Your task to perform on an android device: manage bookmarks in the chrome app Image 0: 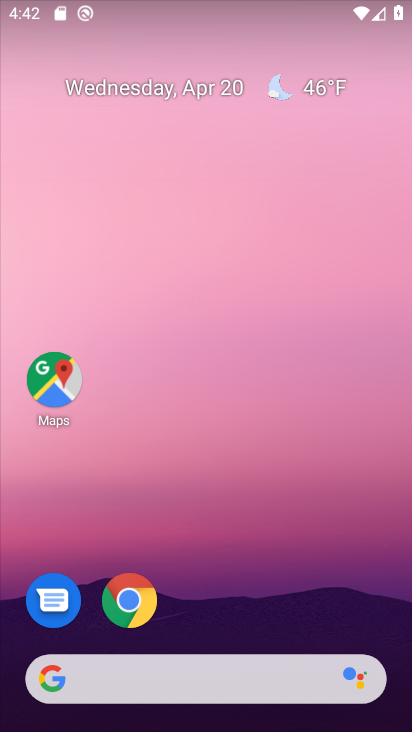
Step 0: click (126, 594)
Your task to perform on an android device: manage bookmarks in the chrome app Image 1: 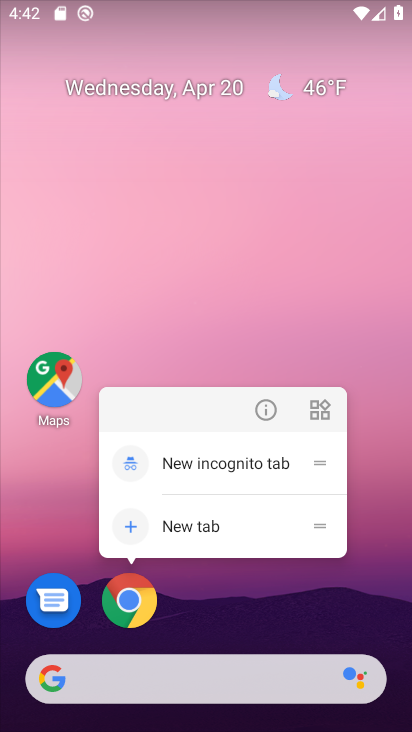
Step 1: click (213, 238)
Your task to perform on an android device: manage bookmarks in the chrome app Image 2: 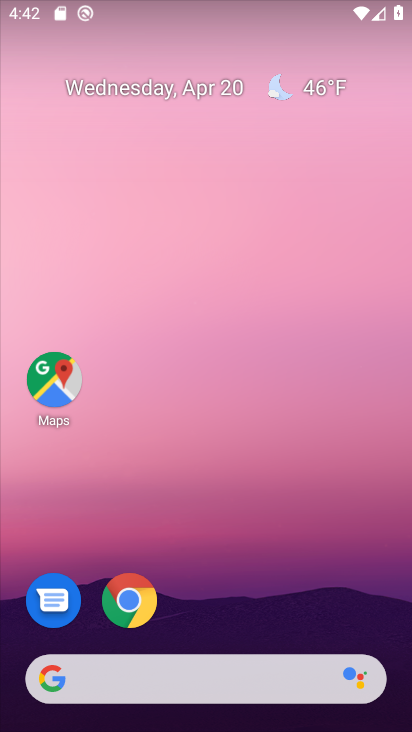
Step 2: drag from (211, 620) to (200, 84)
Your task to perform on an android device: manage bookmarks in the chrome app Image 3: 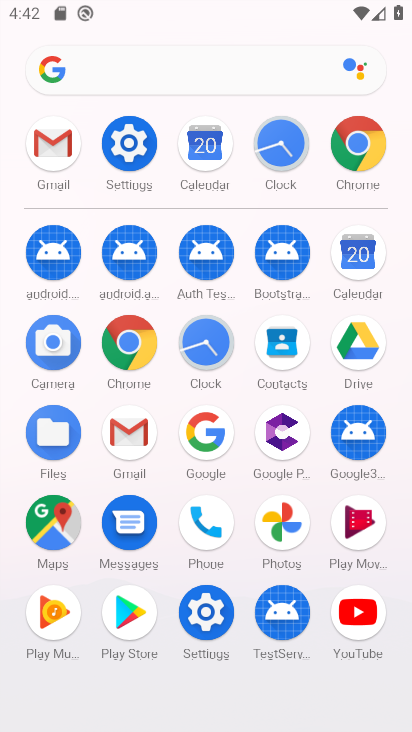
Step 3: click (127, 339)
Your task to perform on an android device: manage bookmarks in the chrome app Image 4: 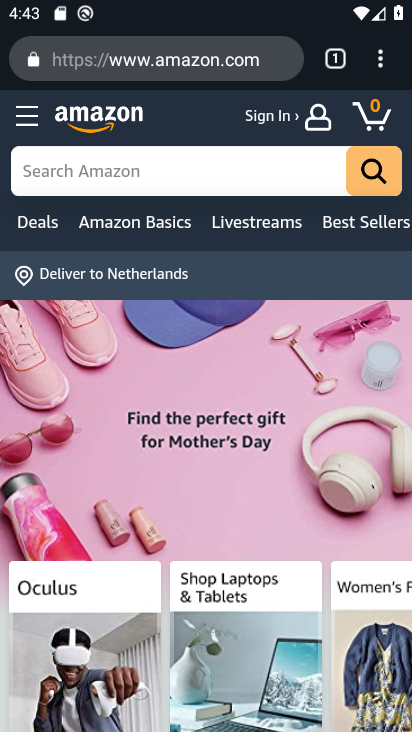
Step 4: click (379, 55)
Your task to perform on an android device: manage bookmarks in the chrome app Image 5: 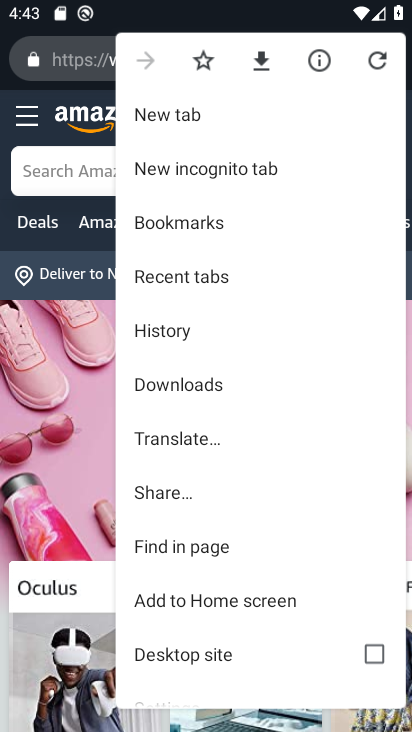
Step 5: click (235, 211)
Your task to perform on an android device: manage bookmarks in the chrome app Image 6: 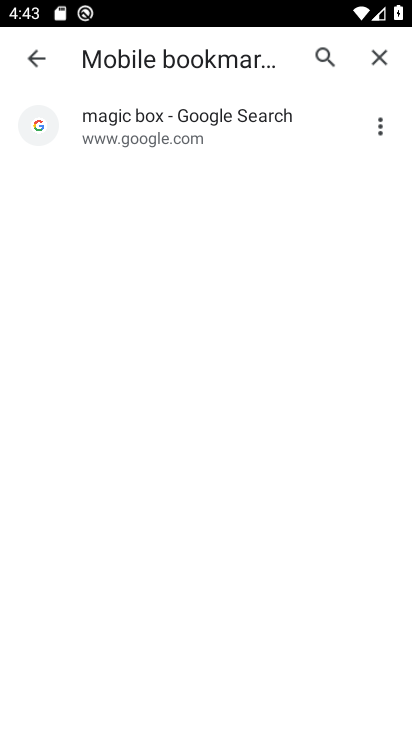
Step 6: click (377, 124)
Your task to perform on an android device: manage bookmarks in the chrome app Image 7: 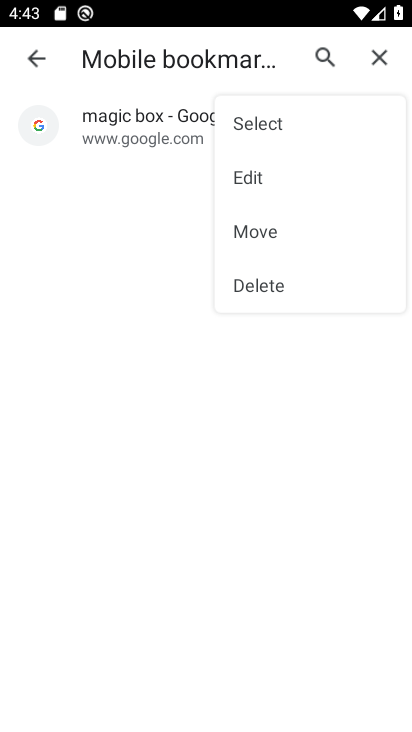
Step 7: click (300, 282)
Your task to perform on an android device: manage bookmarks in the chrome app Image 8: 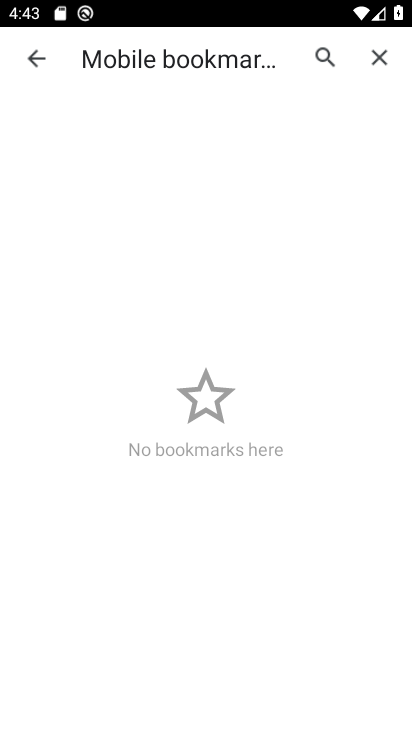
Step 8: task complete